Your task to perform on an android device: delete browsing data in the chrome app Image 0: 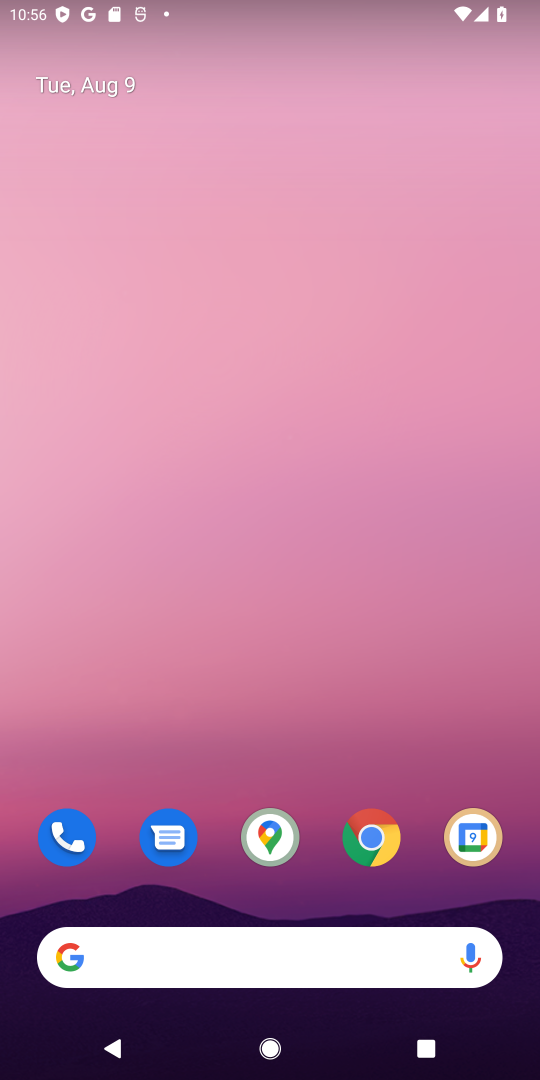
Step 0: click (363, 839)
Your task to perform on an android device: delete browsing data in the chrome app Image 1: 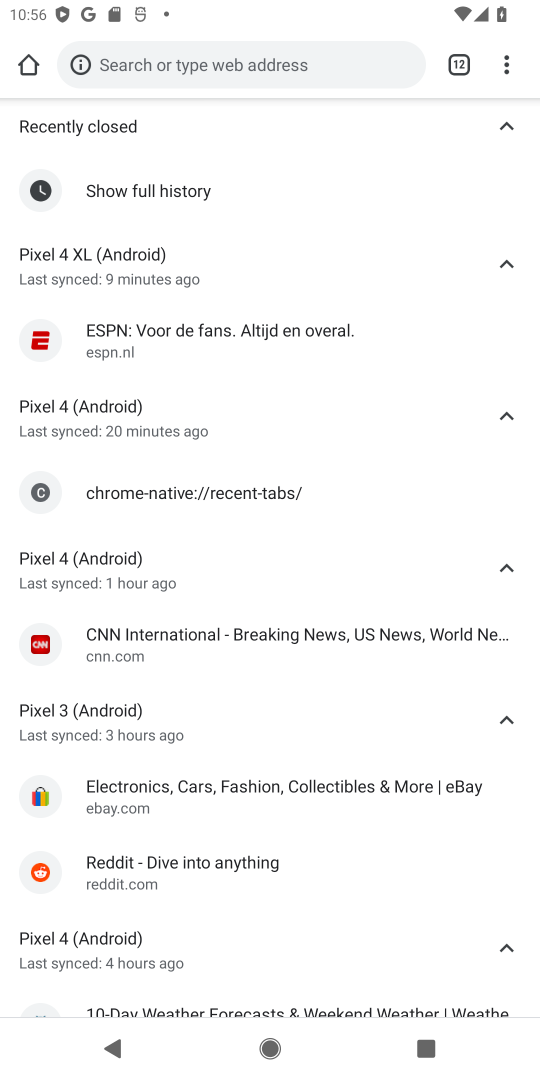
Step 1: click (506, 66)
Your task to perform on an android device: delete browsing data in the chrome app Image 2: 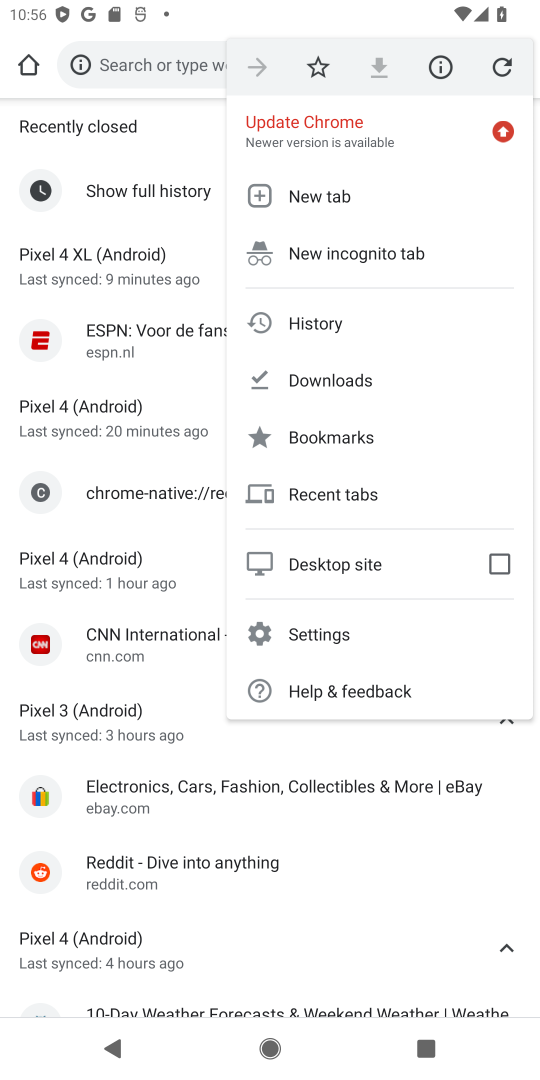
Step 2: click (315, 314)
Your task to perform on an android device: delete browsing data in the chrome app Image 3: 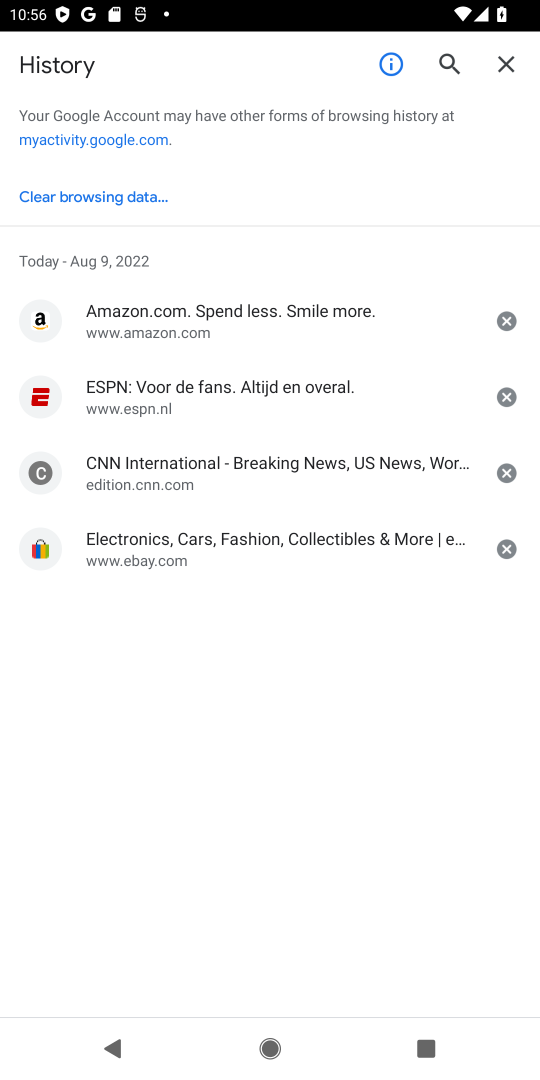
Step 3: click (85, 194)
Your task to perform on an android device: delete browsing data in the chrome app Image 4: 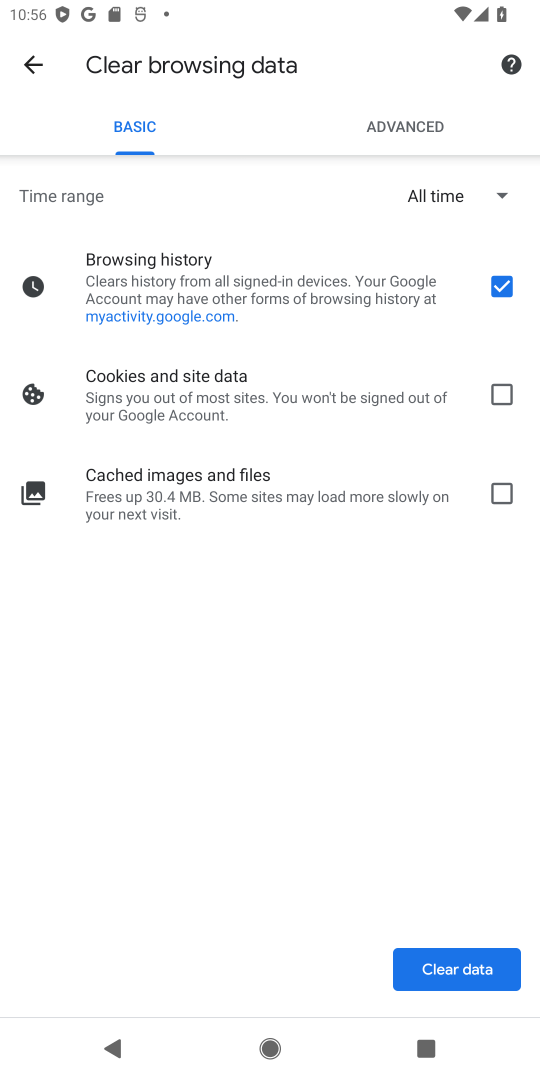
Step 4: click (444, 983)
Your task to perform on an android device: delete browsing data in the chrome app Image 5: 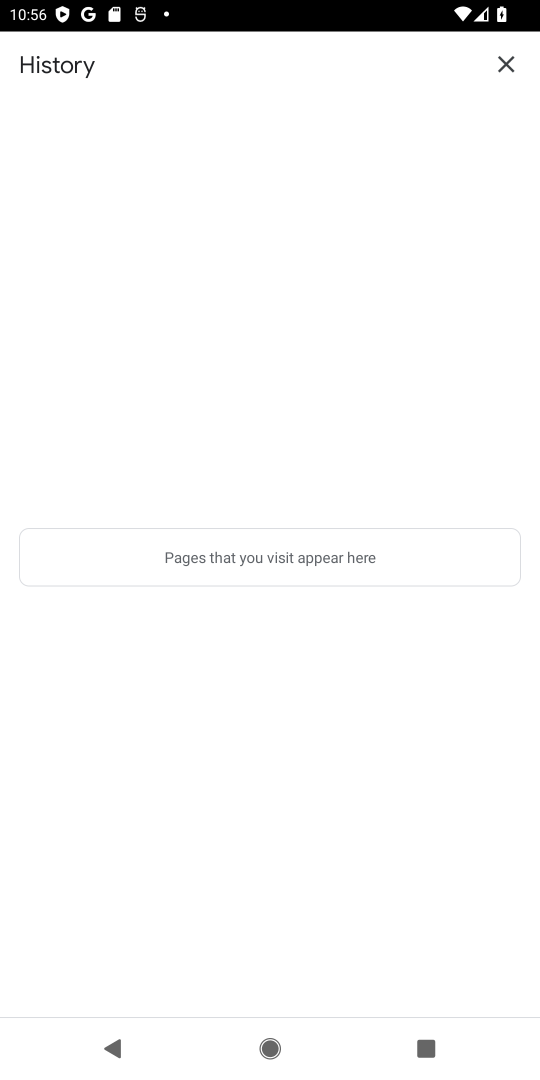
Step 5: task complete